Your task to perform on an android device: turn on translation in the chrome app Image 0: 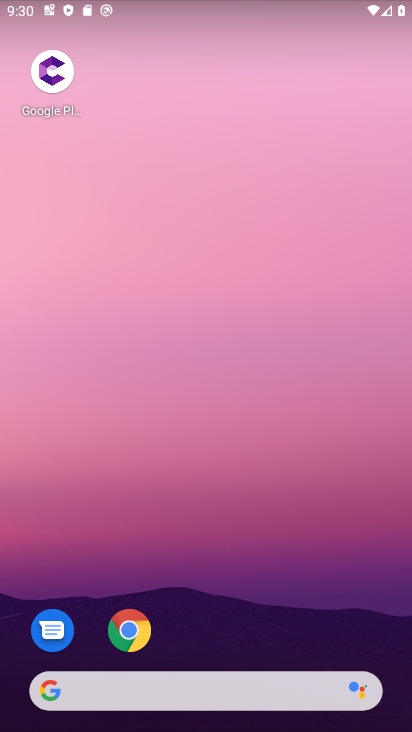
Step 0: drag from (276, 514) to (349, 243)
Your task to perform on an android device: turn on translation in the chrome app Image 1: 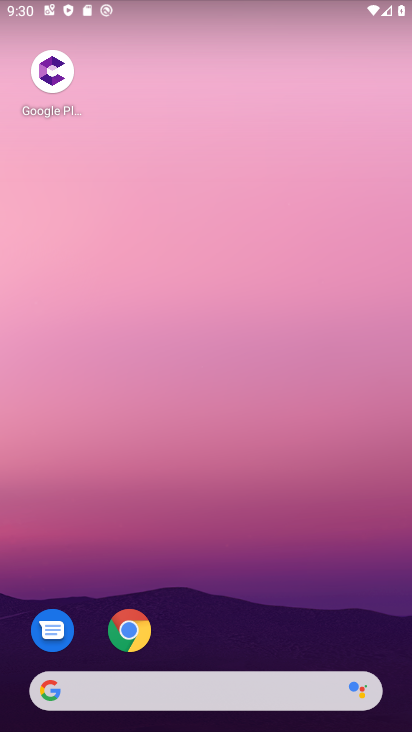
Step 1: drag from (281, 580) to (383, 169)
Your task to perform on an android device: turn on translation in the chrome app Image 2: 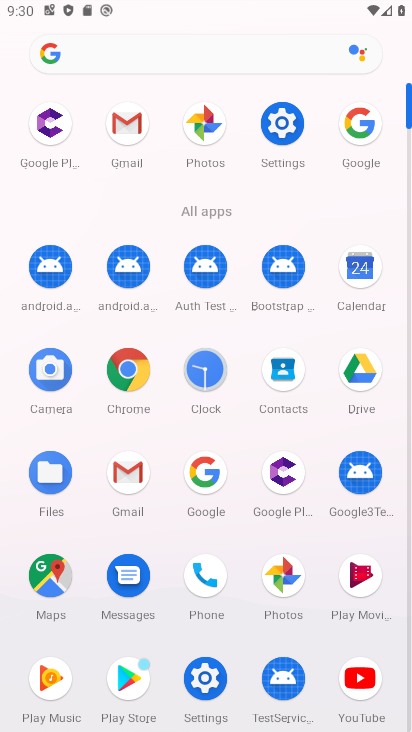
Step 2: click (125, 389)
Your task to perform on an android device: turn on translation in the chrome app Image 3: 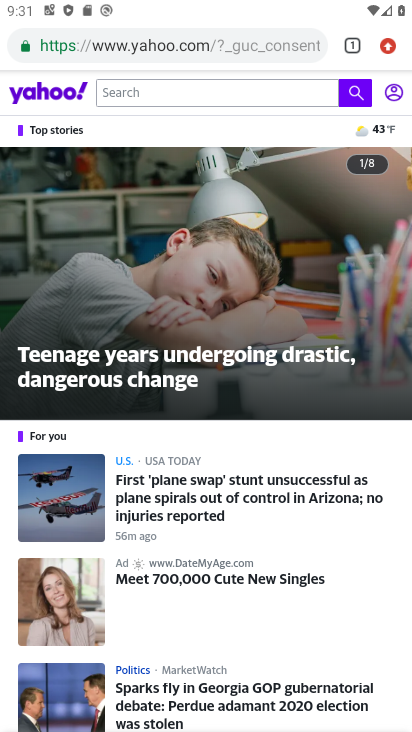
Step 3: click (383, 45)
Your task to perform on an android device: turn on translation in the chrome app Image 4: 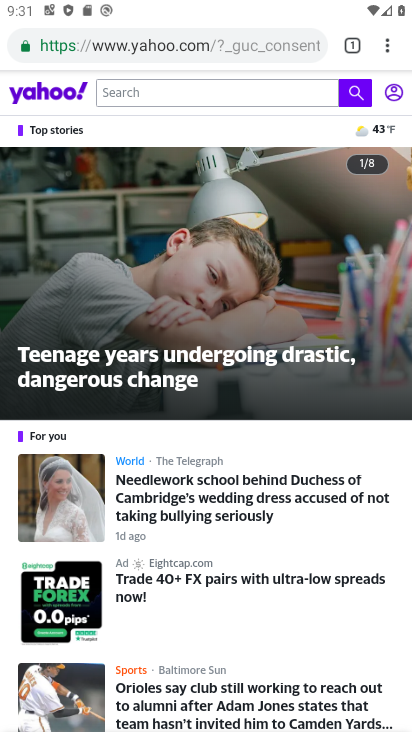
Step 4: click (390, 49)
Your task to perform on an android device: turn on translation in the chrome app Image 5: 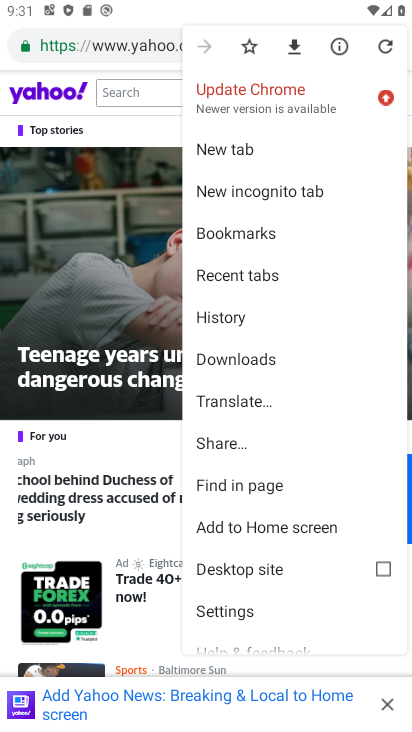
Step 5: click (253, 409)
Your task to perform on an android device: turn on translation in the chrome app Image 6: 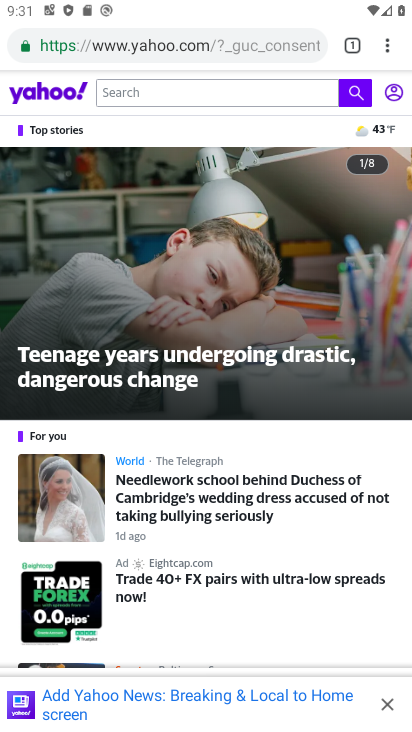
Step 6: click (380, 703)
Your task to perform on an android device: turn on translation in the chrome app Image 7: 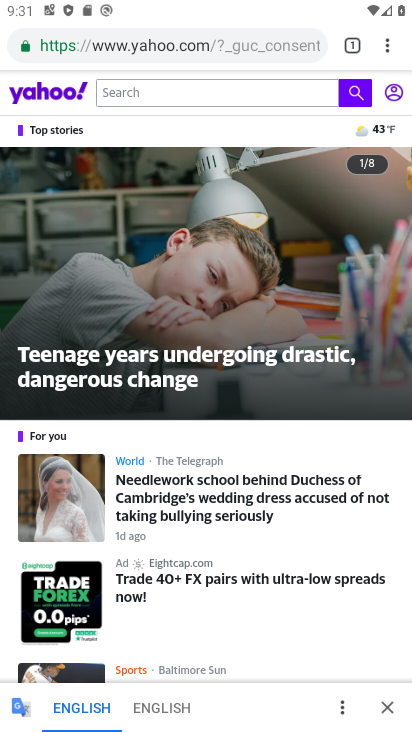
Step 7: click (338, 707)
Your task to perform on an android device: turn on translation in the chrome app Image 8: 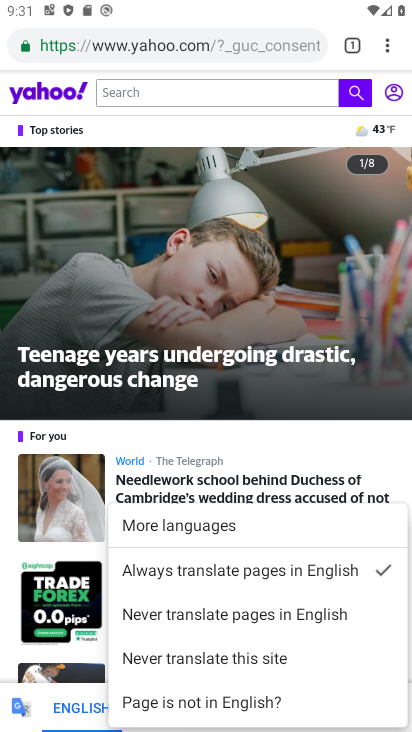
Step 8: task complete